Your task to perform on an android device: toggle translation in the chrome app Image 0: 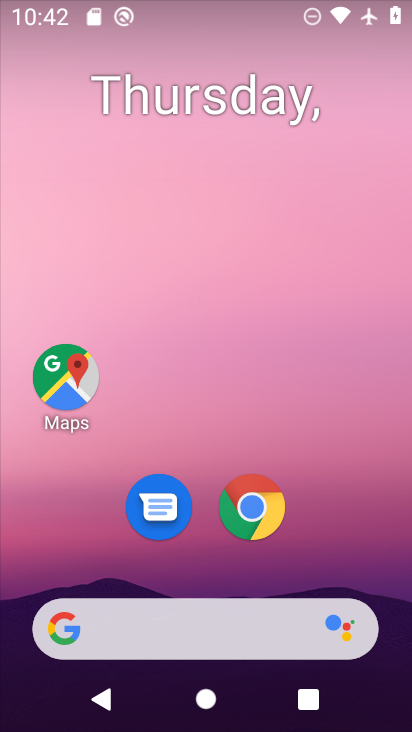
Step 0: drag from (320, 485) to (260, 3)
Your task to perform on an android device: toggle translation in the chrome app Image 1: 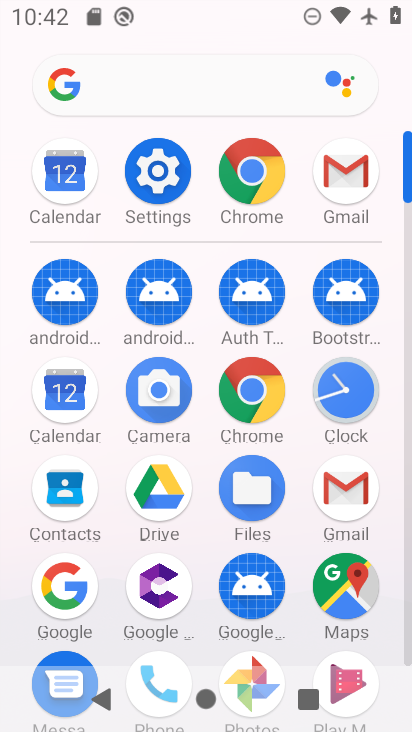
Step 1: drag from (22, 612) to (22, 368)
Your task to perform on an android device: toggle translation in the chrome app Image 2: 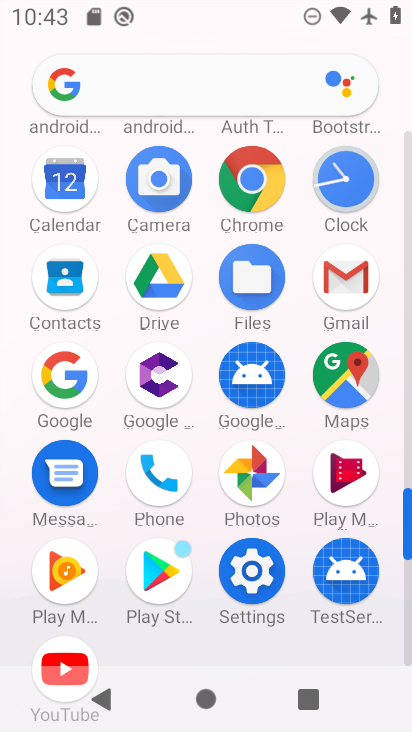
Step 2: click (249, 175)
Your task to perform on an android device: toggle translation in the chrome app Image 3: 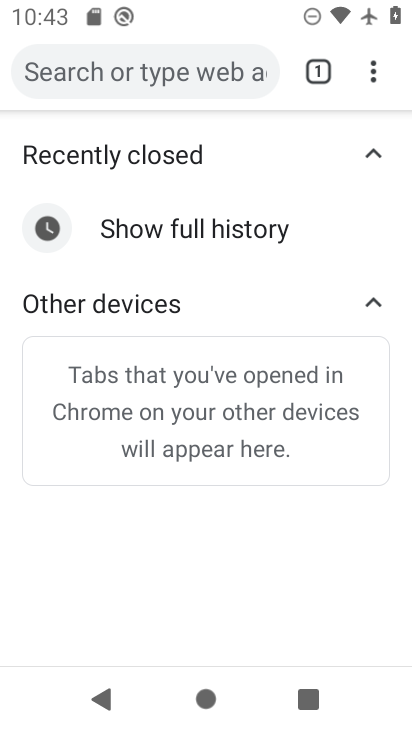
Step 3: drag from (375, 73) to (149, 499)
Your task to perform on an android device: toggle translation in the chrome app Image 4: 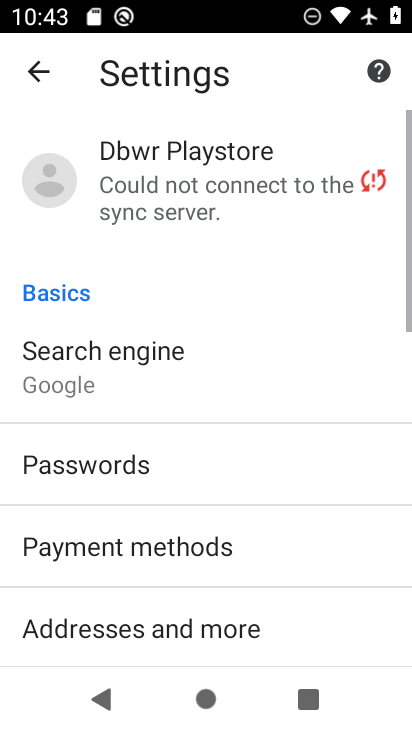
Step 4: drag from (237, 556) to (215, 155)
Your task to perform on an android device: toggle translation in the chrome app Image 5: 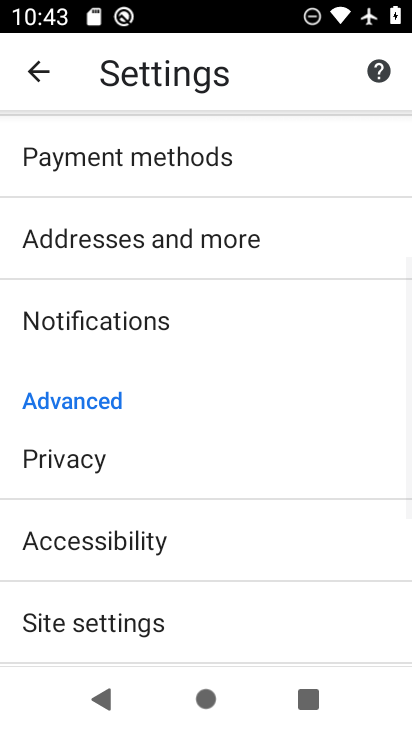
Step 5: drag from (261, 542) to (266, 176)
Your task to perform on an android device: toggle translation in the chrome app Image 6: 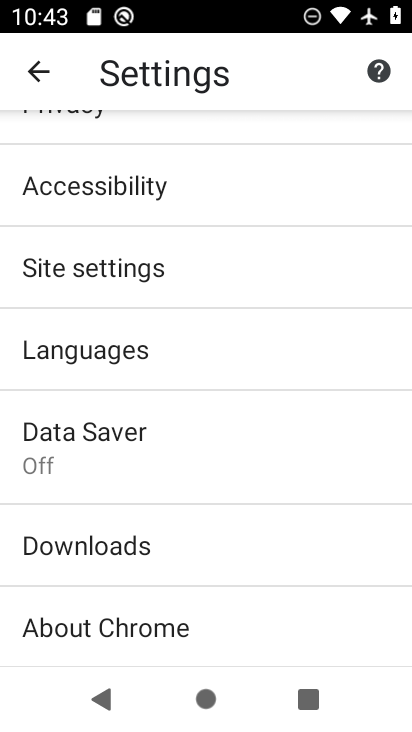
Step 6: click (159, 339)
Your task to perform on an android device: toggle translation in the chrome app Image 7: 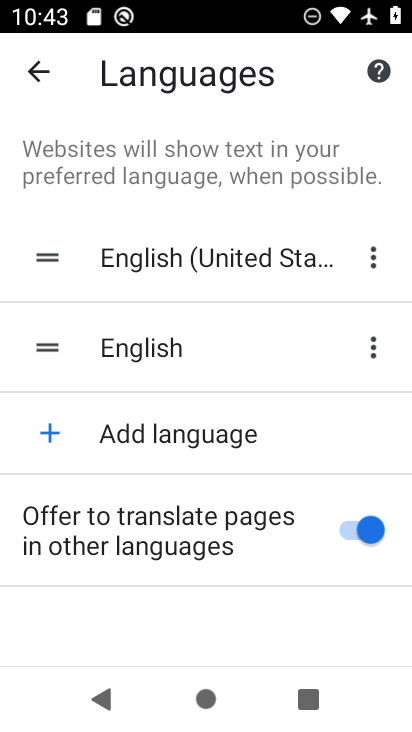
Step 7: click (360, 527)
Your task to perform on an android device: toggle translation in the chrome app Image 8: 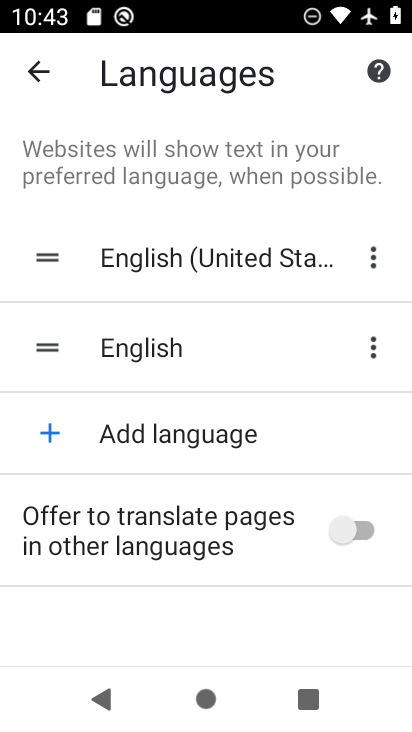
Step 8: task complete